Your task to perform on an android device: turn notification dots on Image 0: 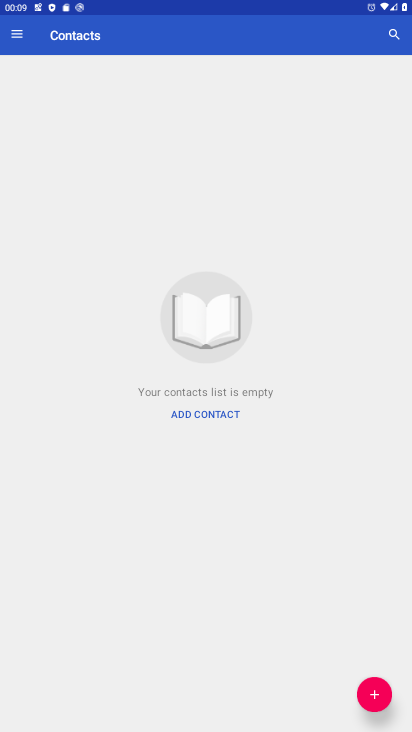
Step 0: drag from (299, 9) to (270, 672)
Your task to perform on an android device: turn notification dots on Image 1: 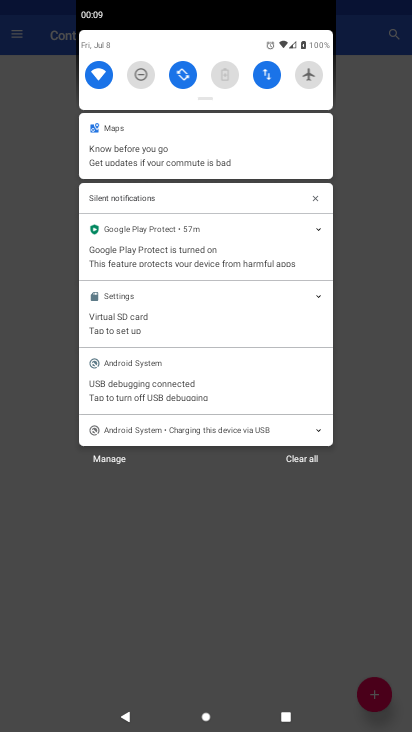
Step 1: drag from (199, 48) to (246, 610)
Your task to perform on an android device: turn notification dots on Image 2: 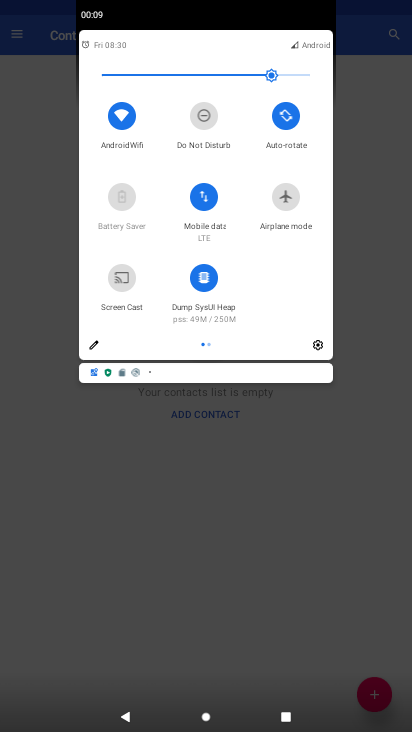
Step 2: click (319, 348)
Your task to perform on an android device: turn notification dots on Image 3: 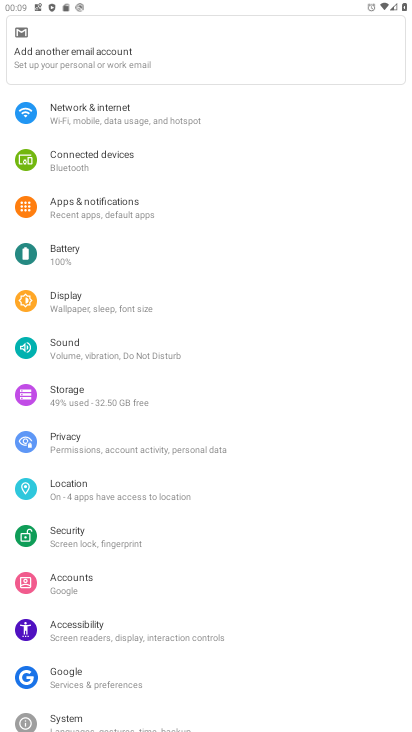
Step 3: click (170, 190)
Your task to perform on an android device: turn notification dots on Image 4: 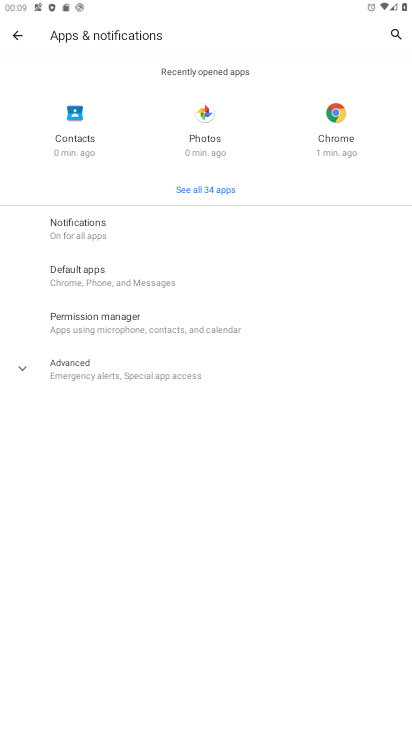
Step 4: click (129, 227)
Your task to perform on an android device: turn notification dots on Image 5: 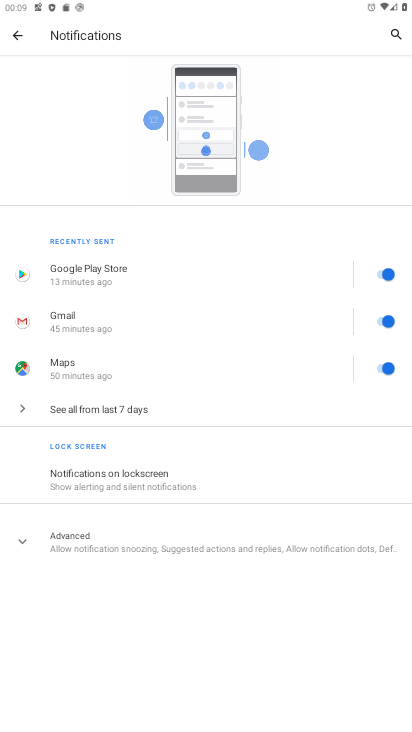
Step 5: click (86, 535)
Your task to perform on an android device: turn notification dots on Image 6: 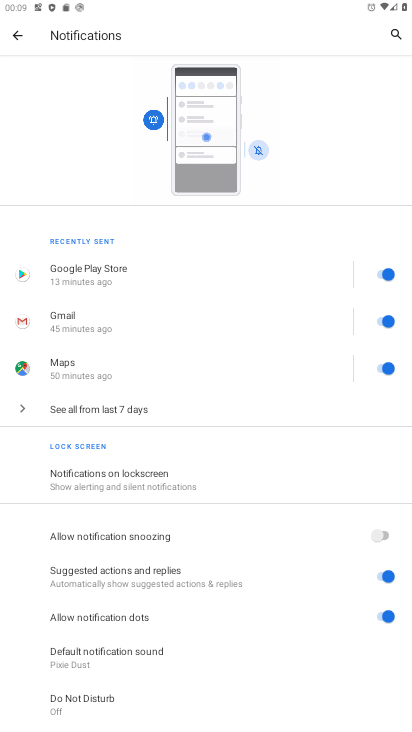
Step 6: task complete